Your task to perform on an android device: turn vacation reply on in the gmail app Image 0: 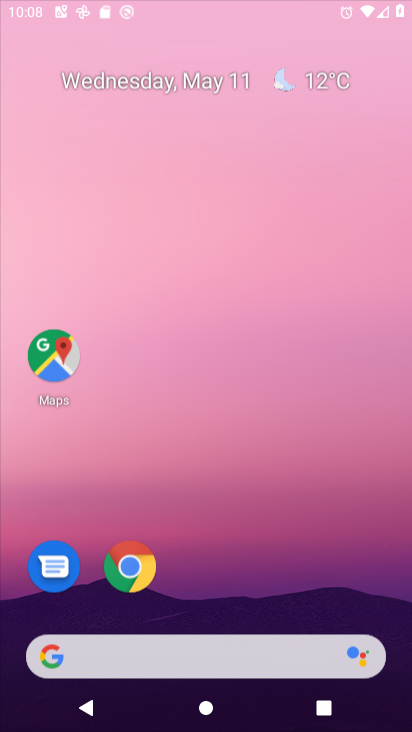
Step 0: click (227, 57)
Your task to perform on an android device: turn vacation reply on in the gmail app Image 1: 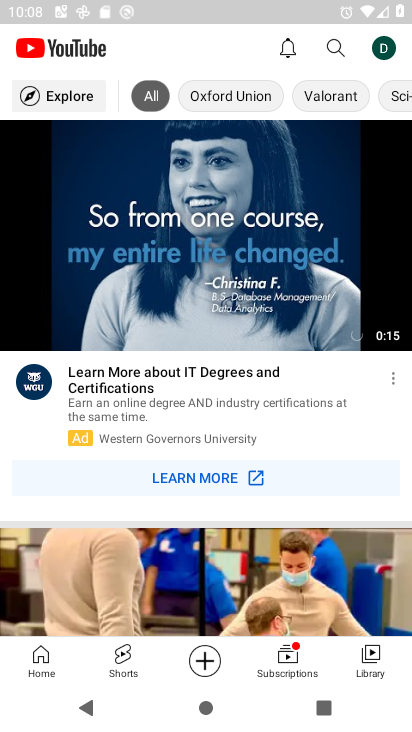
Step 1: press home button
Your task to perform on an android device: turn vacation reply on in the gmail app Image 2: 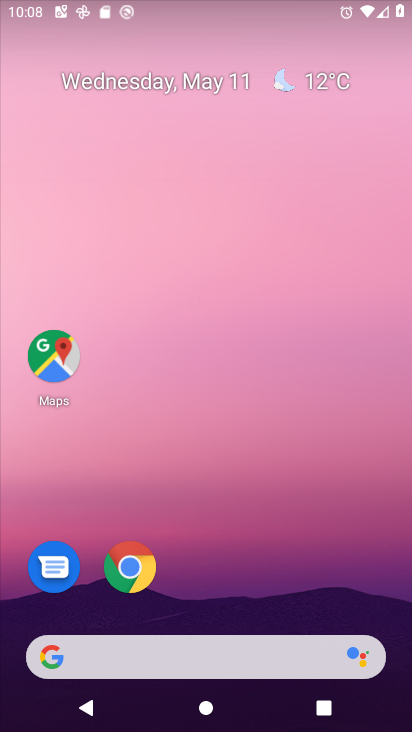
Step 2: drag from (269, 532) to (223, 132)
Your task to perform on an android device: turn vacation reply on in the gmail app Image 3: 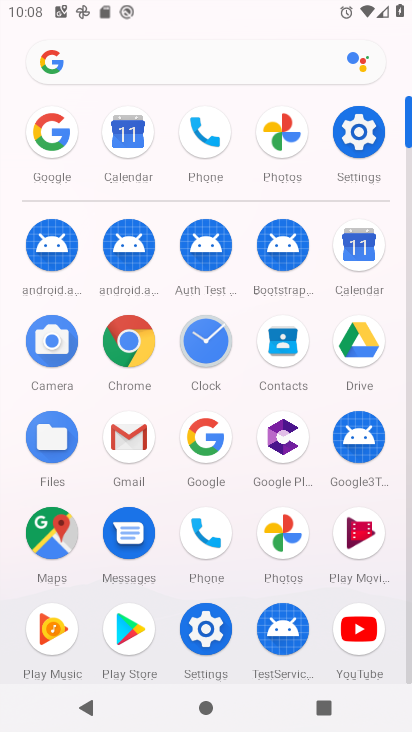
Step 3: click (134, 431)
Your task to perform on an android device: turn vacation reply on in the gmail app Image 4: 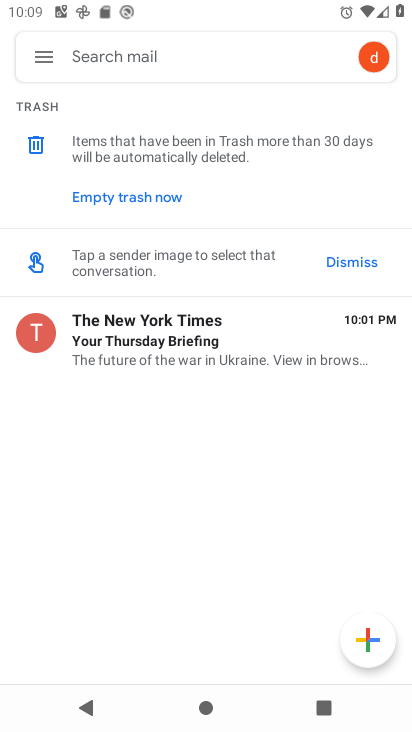
Step 4: click (40, 55)
Your task to perform on an android device: turn vacation reply on in the gmail app Image 5: 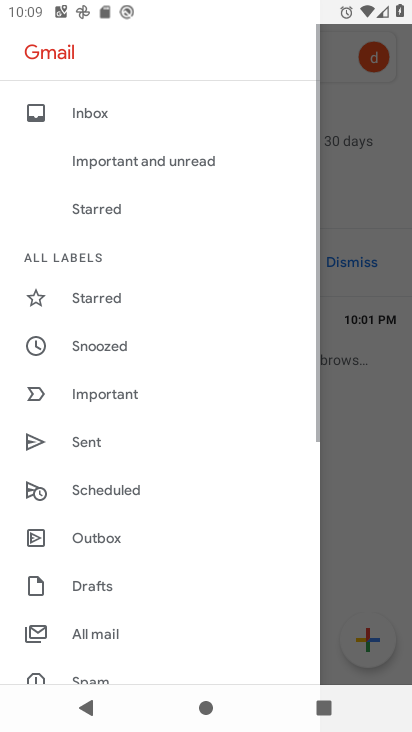
Step 5: drag from (159, 605) to (164, 122)
Your task to perform on an android device: turn vacation reply on in the gmail app Image 6: 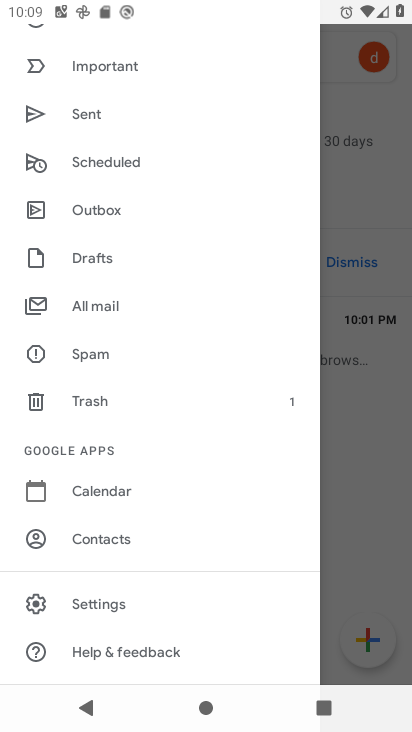
Step 6: click (105, 610)
Your task to perform on an android device: turn vacation reply on in the gmail app Image 7: 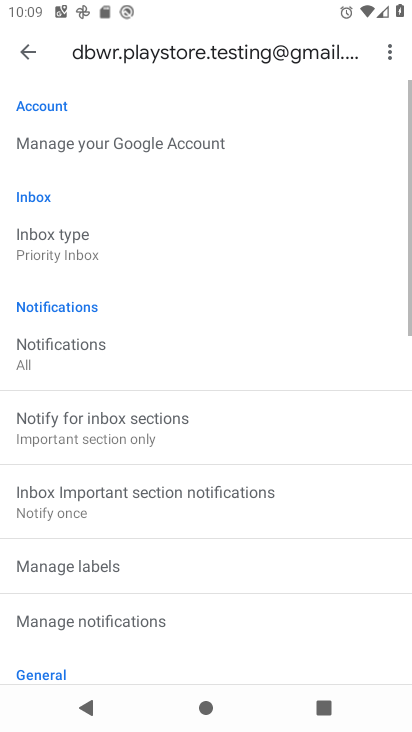
Step 7: drag from (183, 601) to (205, 136)
Your task to perform on an android device: turn vacation reply on in the gmail app Image 8: 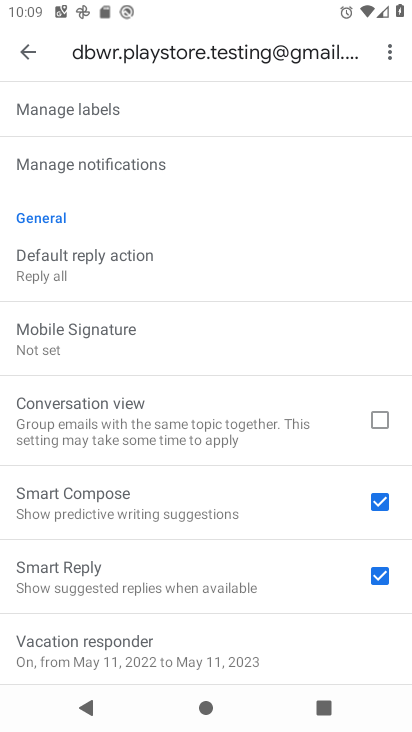
Step 8: click (139, 639)
Your task to perform on an android device: turn vacation reply on in the gmail app Image 9: 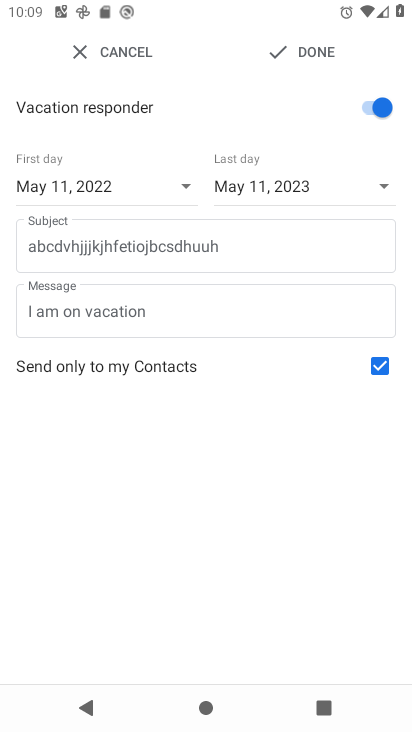
Step 9: click (316, 42)
Your task to perform on an android device: turn vacation reply on in the gmail app Image 10: 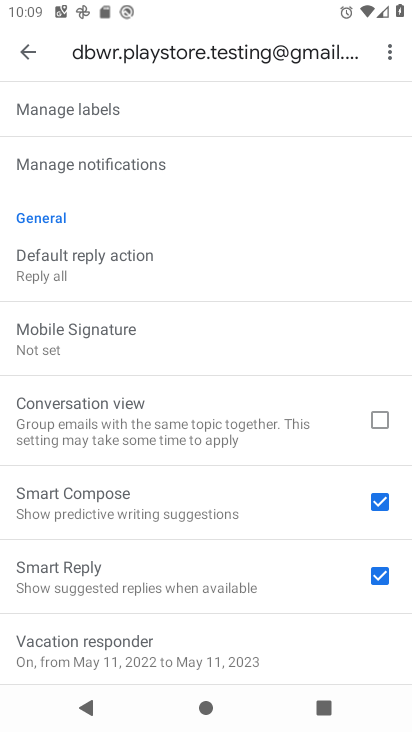
Step 10: task complete